Your task to perform on an android device: Open the map Image 0: 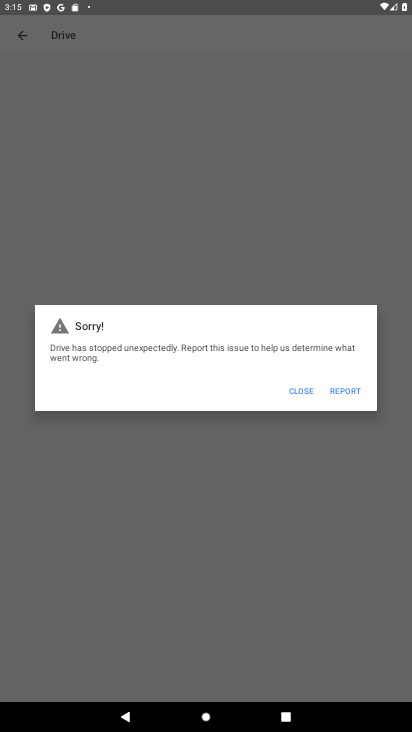
Step 0: press home button
Your task to perform on an android device: Open the map Image 1: 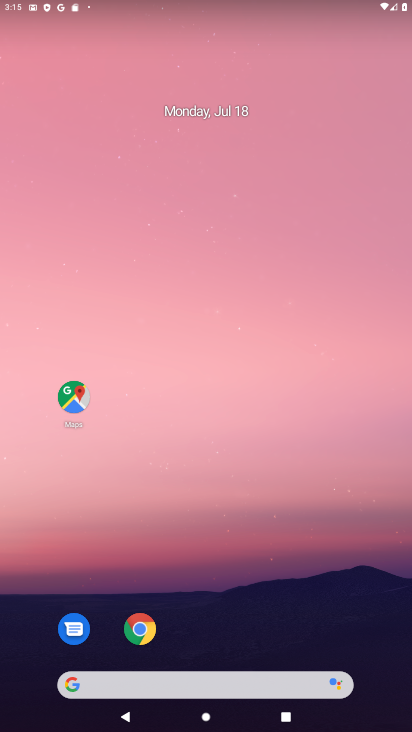
Step 1: drag from (210, 668) to (240, 302)
Your task to perform on an android device: Open the map Image 2: 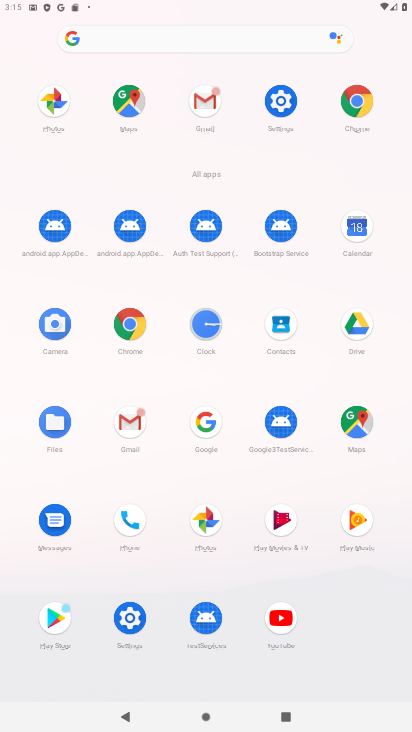
Step 2: click (343, 424)
Your task to perform on an android device: Open the map Image 3: 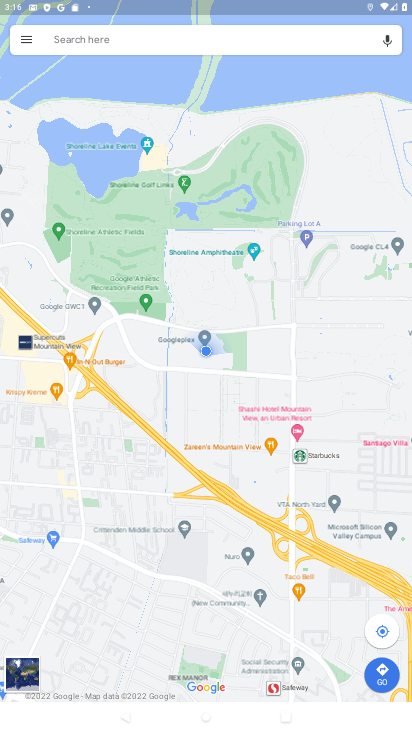
Step 3: task complete